Your task to perform on an android device: Open the web browser Image 0: 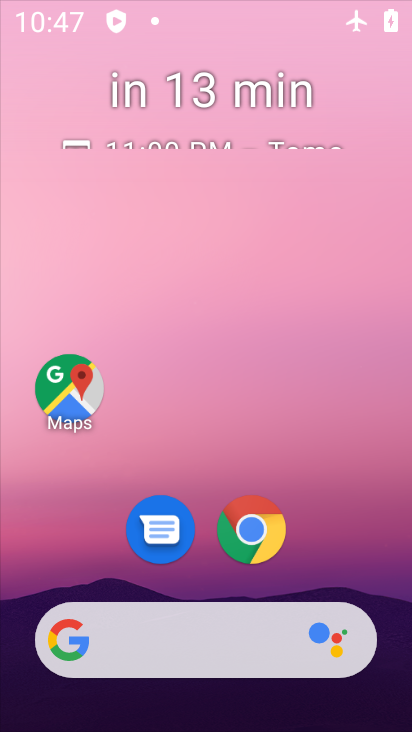
Step 0: drag from (340, 597) to (276, 12)
Your task to perform on an android device: Open the web browser Image 1: 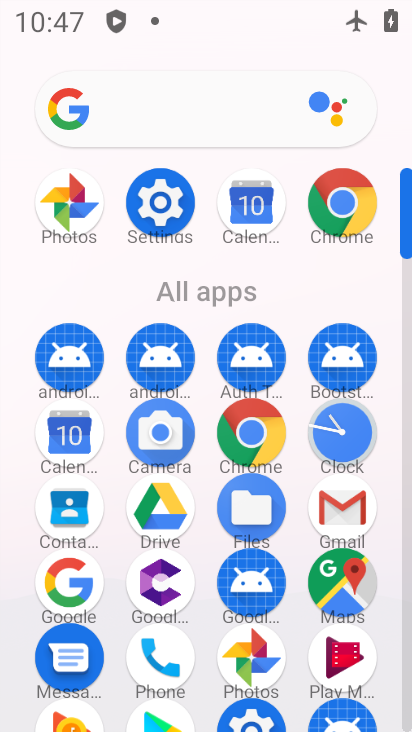
Step 1: click (341, 210)
Your task to perform on an android device: Open the web browser Image 2: 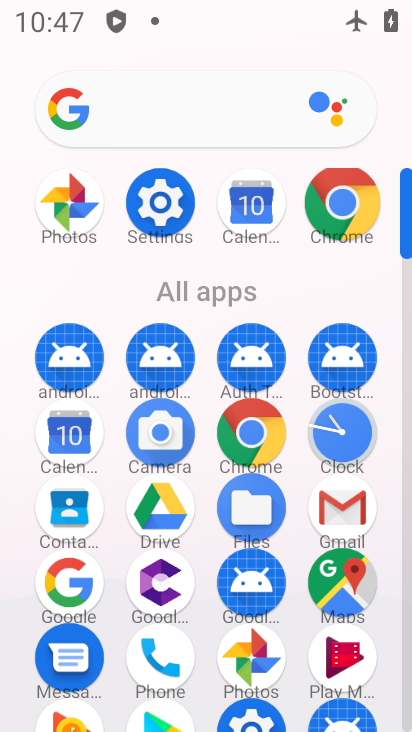
Step 2: click (341, 210)
Your task to perform on an android device: Open the web browser Image 3: 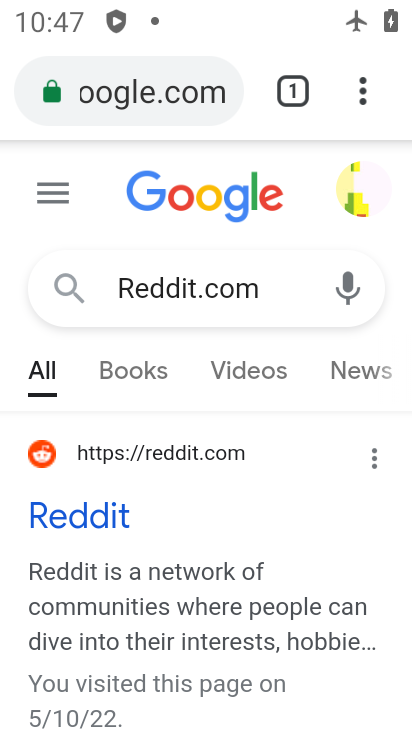
Step 3: task complete